Your task to perform on an android device: What is the news today? Image 0: 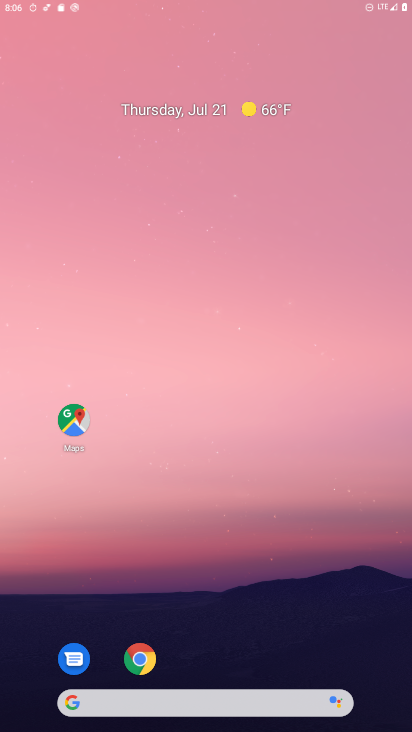
Step 0: drag from (192, 623) to (272, 1)
Your task to perform on an android device: What is the news today? Image 1: 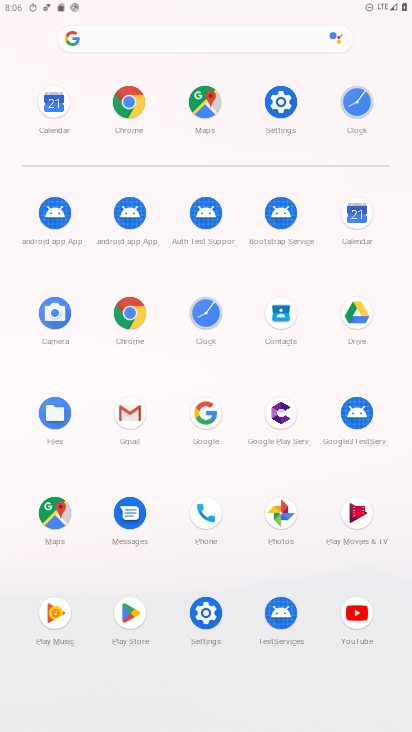
Step 1: click (183, 36)
Your task to perform on an android device: What is the news today? Image 2: 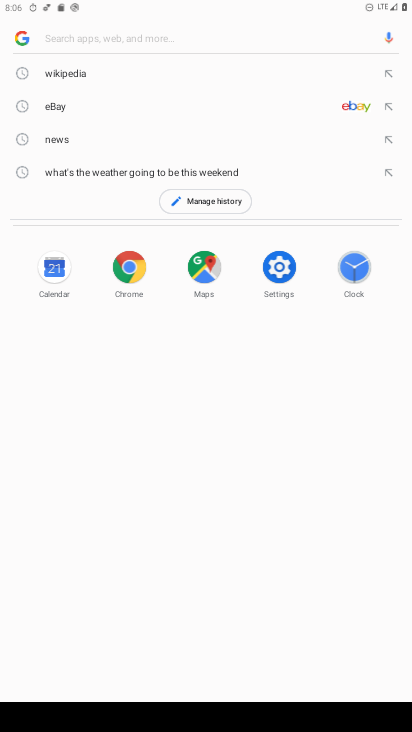
Step 2: type "news today?"
Your task to perform on an android device: What is the news today? Image 3: 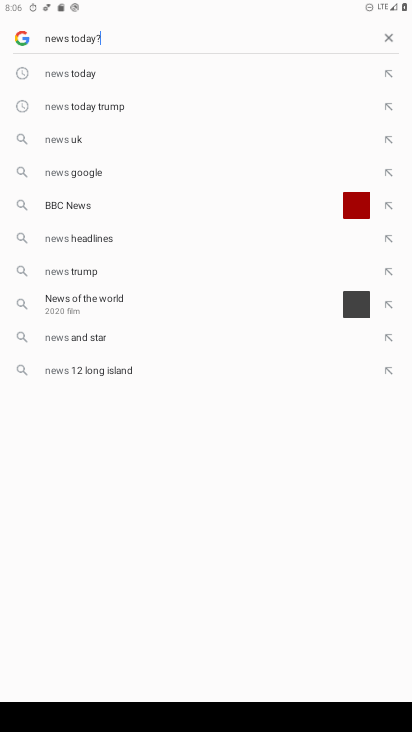
Step 3: type ""
Your task to perform on an android device: What is the news today? Image 4: 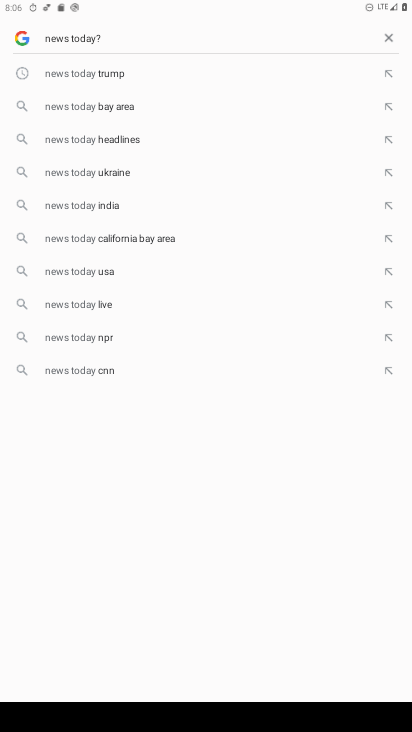
Step 4: click (52, 306)
Your task to perform on an android device: What is the news today? Image 5: 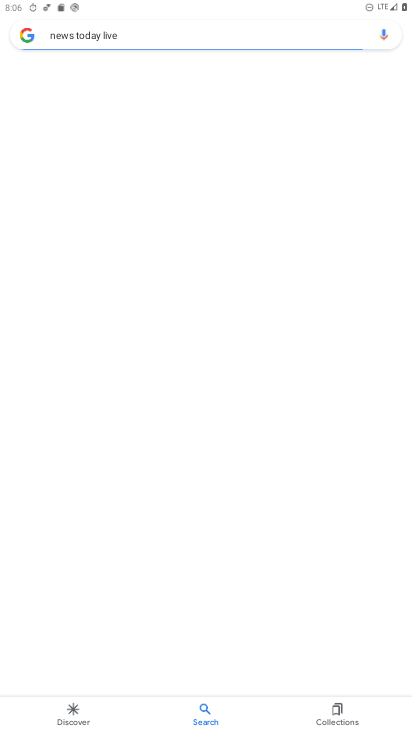
Step 5: task complete